Your task to perform on an android device: allow notifications from all sites in the chrome app Image 0: 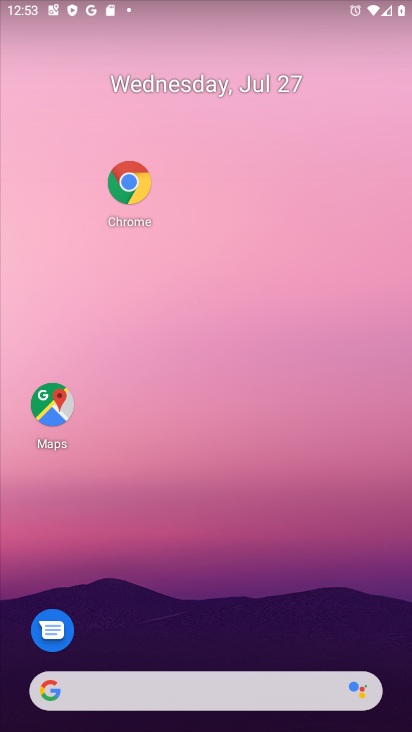
Step 0: click (136, 186)
Your task to perform on an android device: allow notifications from all sites in the chrome app Image 1: 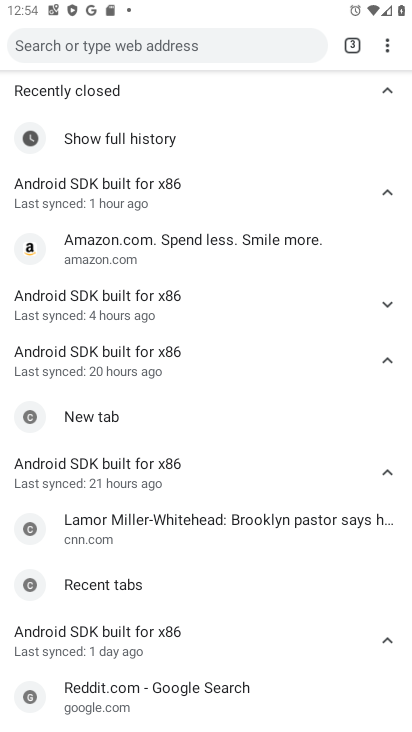
Step 1: click (386, 49)
Your task to perform on an android device: allow notifications from all sites in the chrome app Image 2: 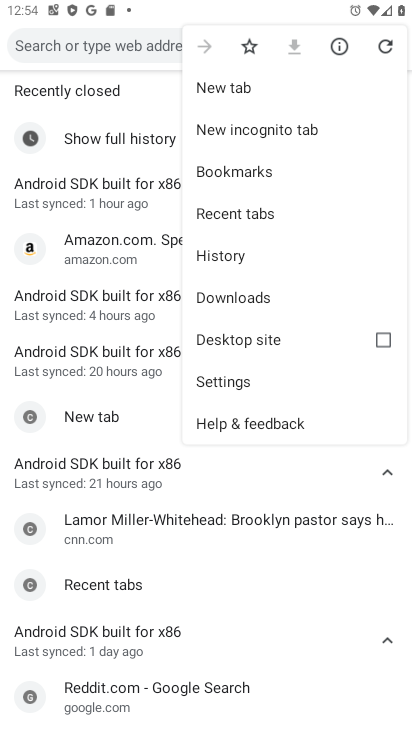
Step 2: click (265, 381)
Your task to perform on an android device: allow notifications from all sites in the chrome app Image 3: 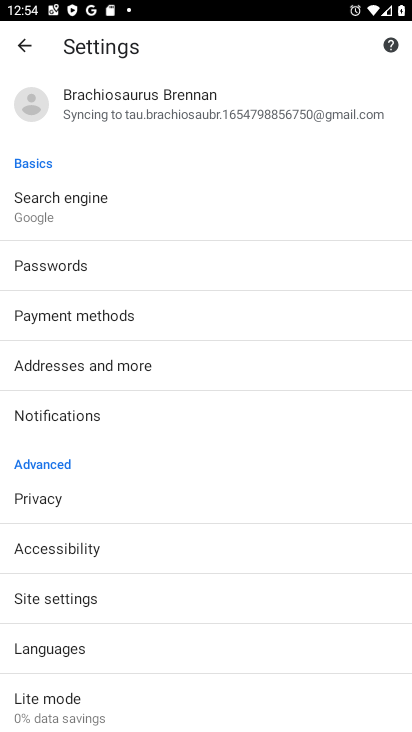
Step 3: click (119, 414)
Your task to perform on an android device: allow notifications from all sites in the chrome app Image 4: 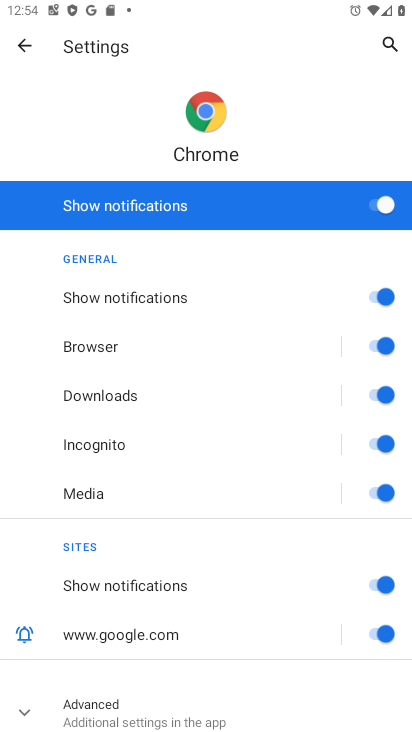
Step 4: task complete